Your task to perform on an android device: Go to Google Image 0: 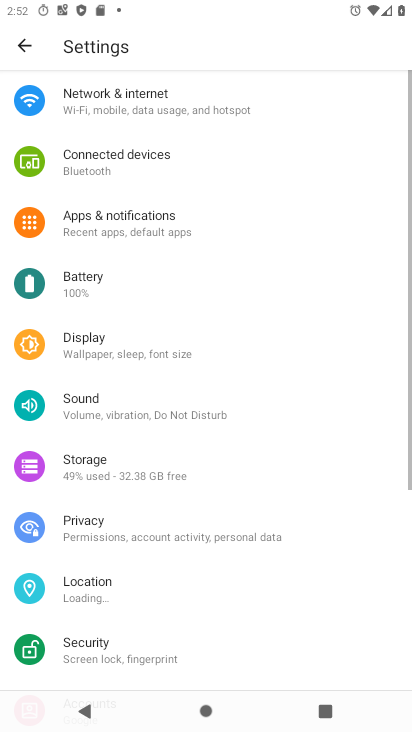
Step 0: press home button
Your task to perform on an android device: Go to Google Image 1: 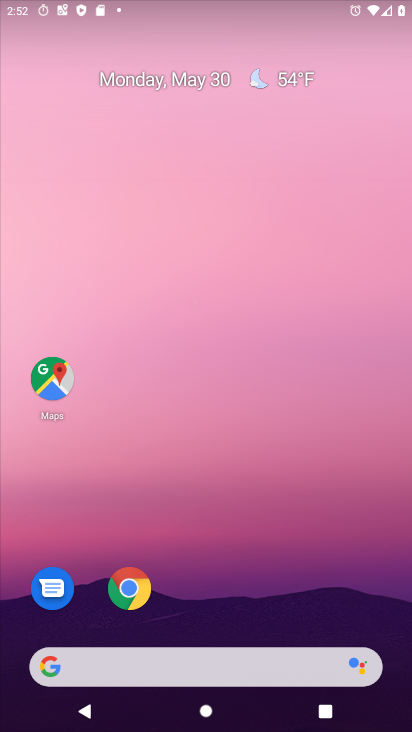
Step 1: drag from (205, 593) to (187, 73)
Your task to perform on an android device: Go to Google Image 2: 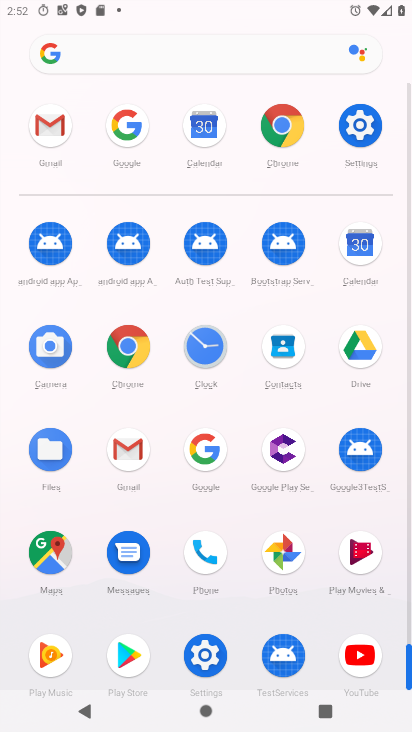
Step 2: click (213, 448)
Your task to perform on an android device: Go to Google Image 3: 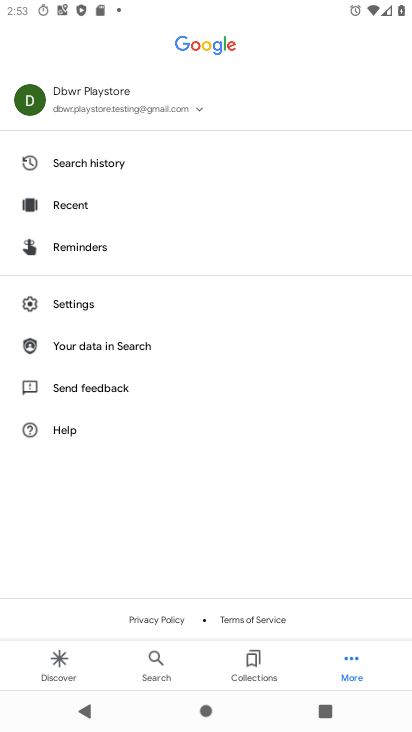
Step 3: task complete